Your task to perform on an android device: clear history in the chrome app Image 0: 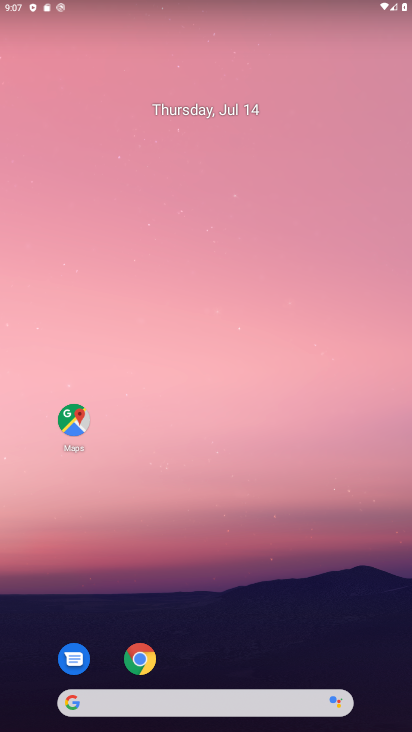
Step 0: drag from (218, 593) to (218, 376)
Your task to perform on an android device: clear history in the chrome app Image 1: 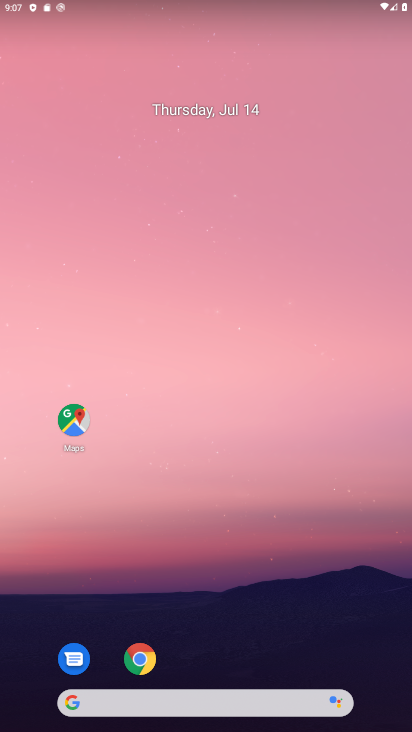
Step 1: drag from (237, 588) to (263, 319)
Your task to perform on an android device: clear history in the chrome app Image 2: 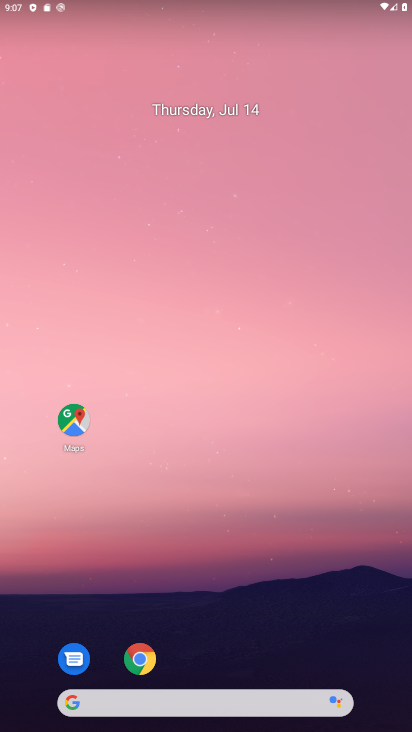
Step 2: drag from (230, 663) to (195, 250)
Your task to perform on an android device: clear history in the chrome app Image 3: 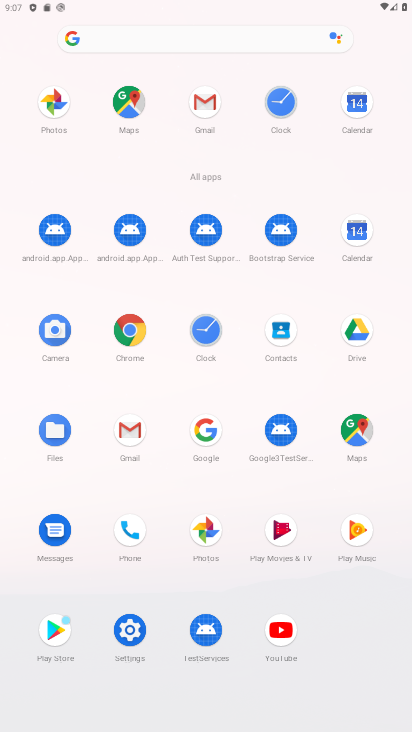
Step 3: click (122, 329)
Your task to perform on an android device: clear history in the chrome app Image 4: 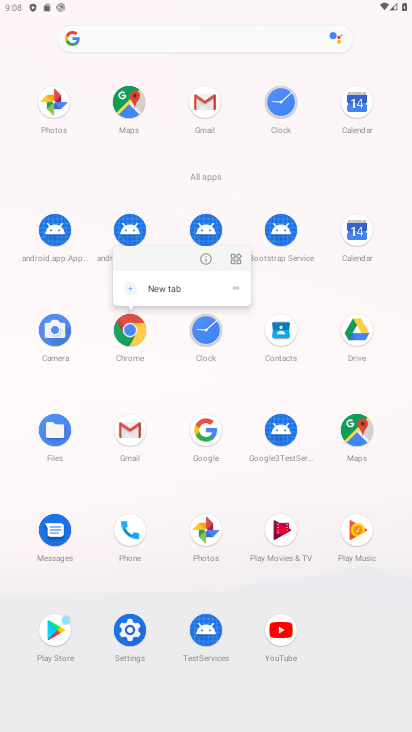
Step 4: click (133, 331)
Your task to perform on an android device: clear history in the chrome app Image 5: 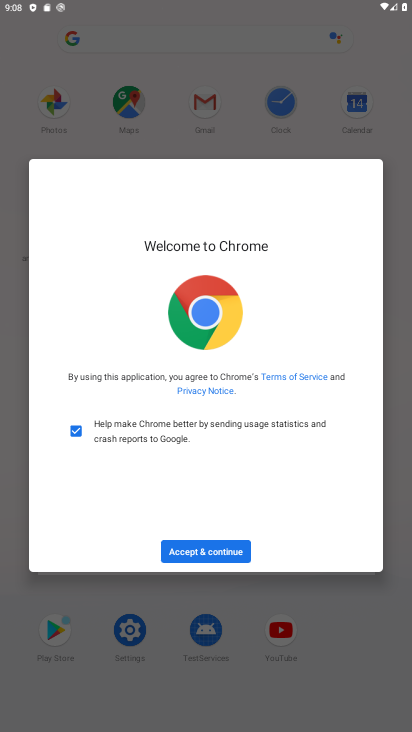
Step 5: click (184, 541)
Your task to perform on an android device: clear history in the chrome app Image 6: 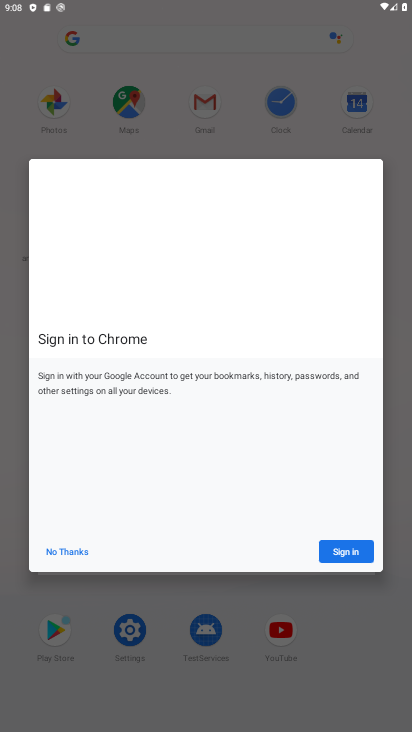
Step 6: click (341, 554)
Your task to perform on an android device: clear history in the chrome app Image 7: 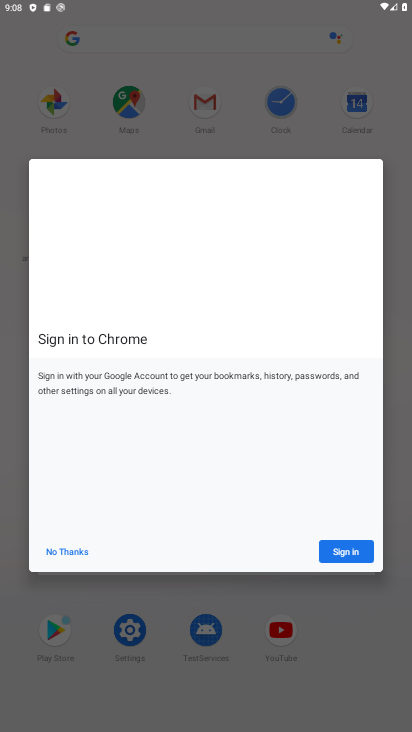
Step 7: click (59, 548)
Your task to perform on an android device: clear history in the chrome app Image 8: 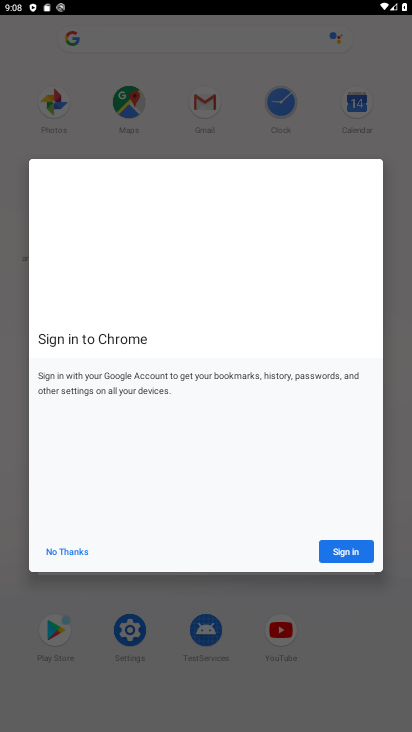
Step 8: click (59, 548)
Your task to perform on an android device: clear history in the chrome app Image 9: 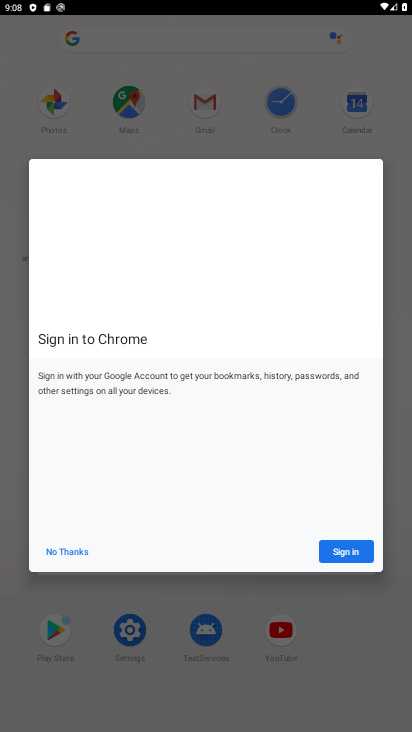
Step 9: click (59, 548)
Your task to perform on an android device: clear history in the chrome app Image 10: 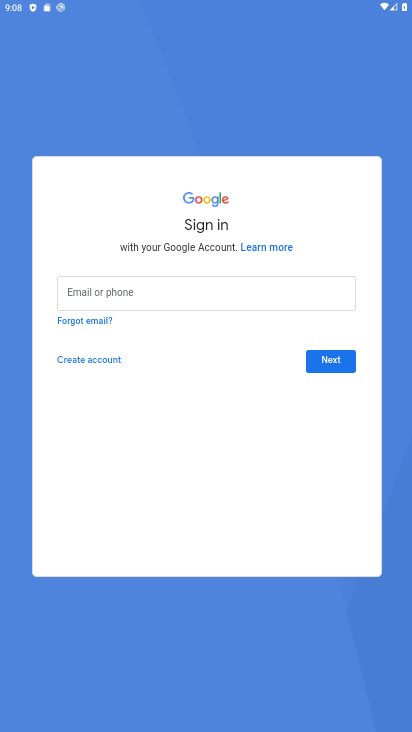
Step 10: task complete